Your task to perform on an android device: change the clock display to digital Image 0: 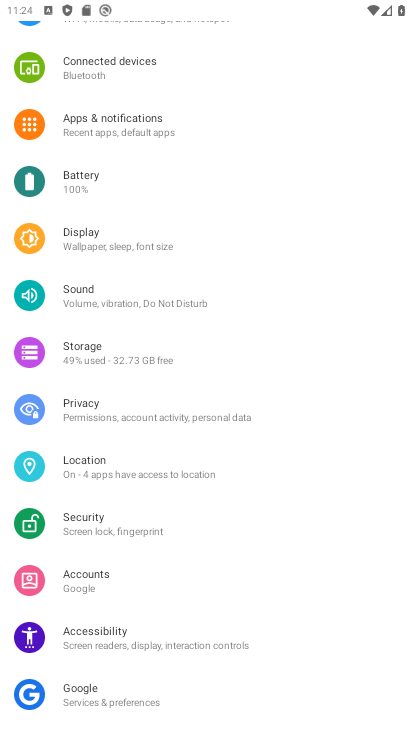
Step 0: press home button
Your task to perform on an android device: change the clock display to digital Image 1: 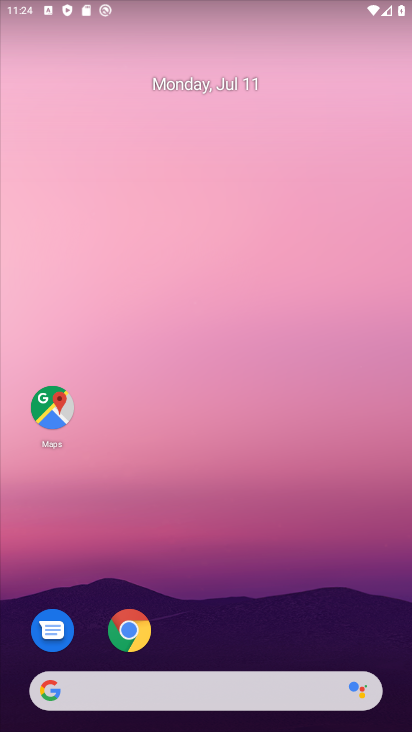
Step 1: drag from (241, 618) to (254, 135)
Your task to perform on an android device: change the clock display to digital Image 2: 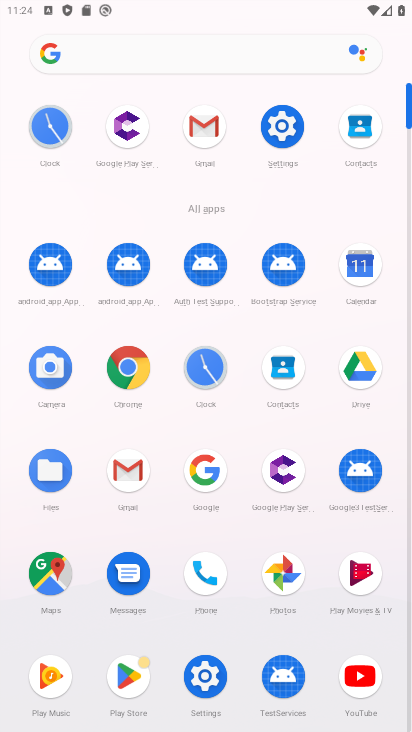
Step 2: click (202, 363)
Your task to perform on an android device: change the clock display to digital Image 3: 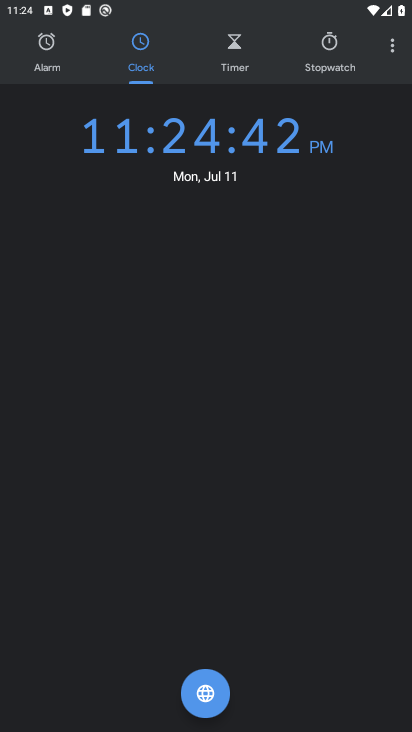
Step 3: click (389, 49)
Your task to perform on an android device: change the clock display to digital Image 4: 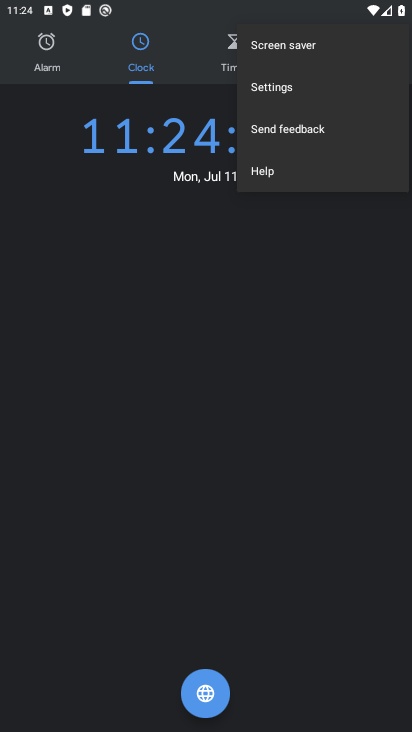
Step 4: click (269, 84)
Your task to perform on an android device: change the clock display to digital Image 5: 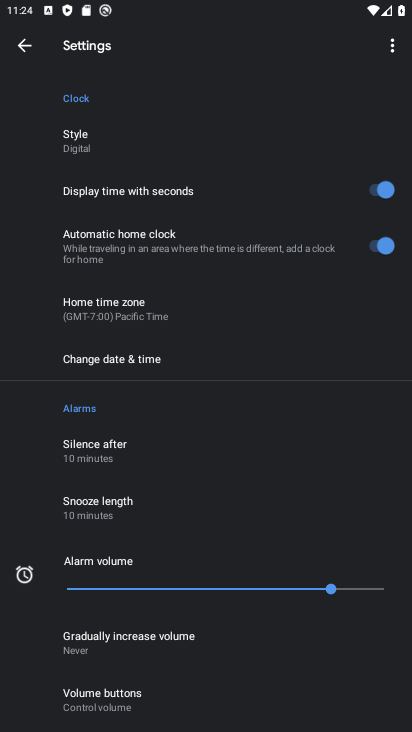
Step 5: click (88, 145)
Your task to perform on an android device: change the clock display to digital Image 6: 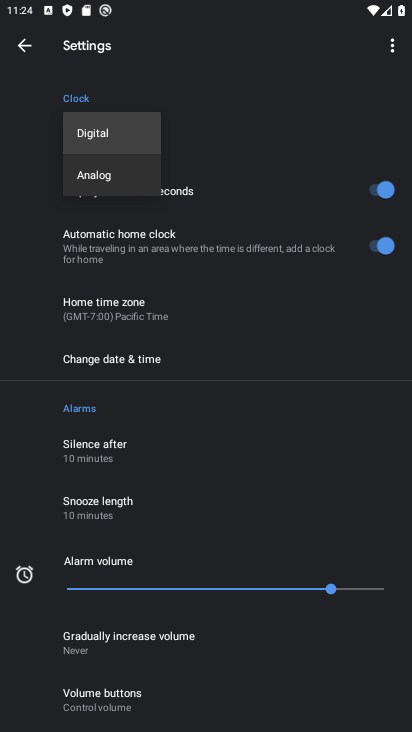
Step 6: task complete